Your task to perform on an android device: Set the phone to "Do not disturb". Image 0: 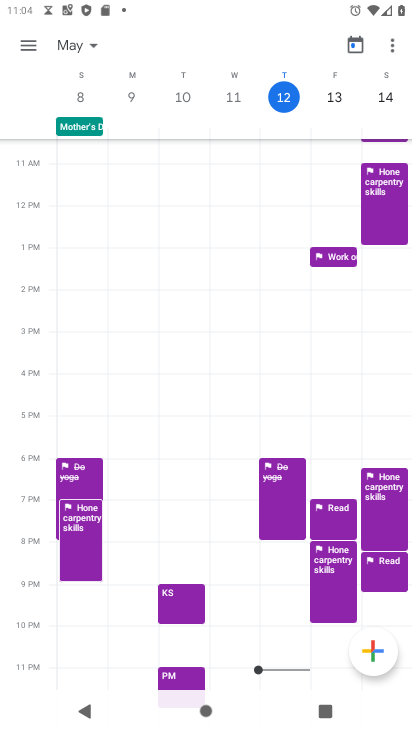
Step 0: press back button
Your task to perform on an android device: Set the phone to "Do not disturb". Image 1: 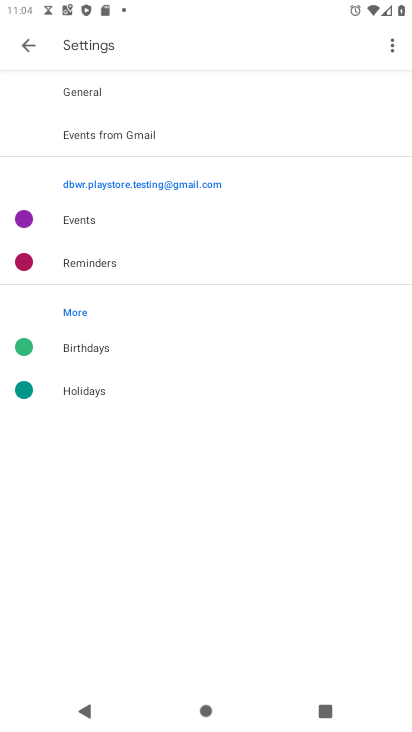
Step 1: press back button
Your task to perform on an android device: Set the phone to "Do not disturb". Image 2: 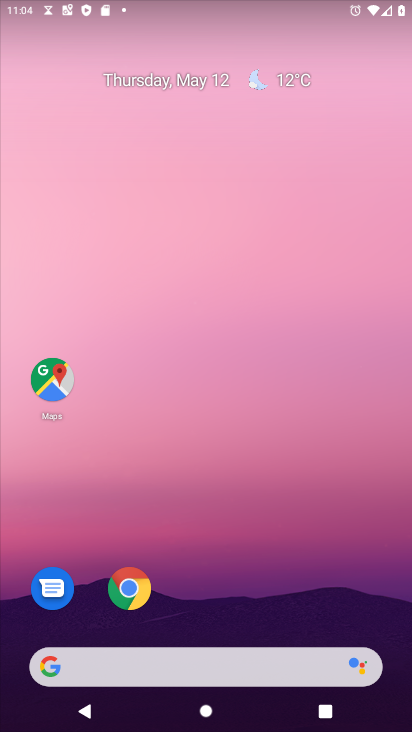
Step 2: drag from (255, 578) to (224, 89)
Your task to perform on an android device: Set the phone to "Do not disturb". Image 3: 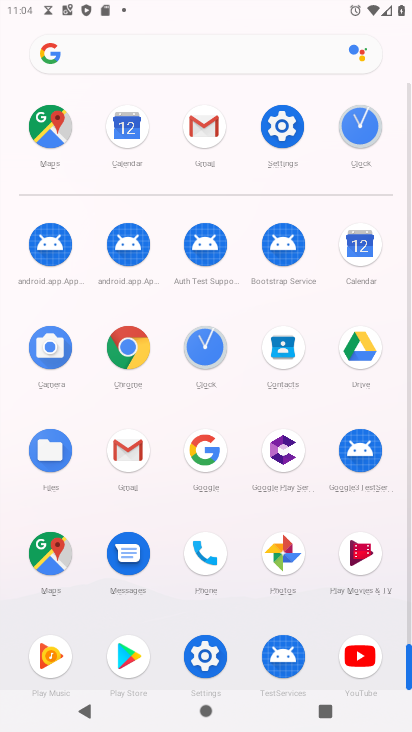
Step 3: click (284, 126)
Your task to perform on an android device: Set the phone to "Do not disturb". Image 4: 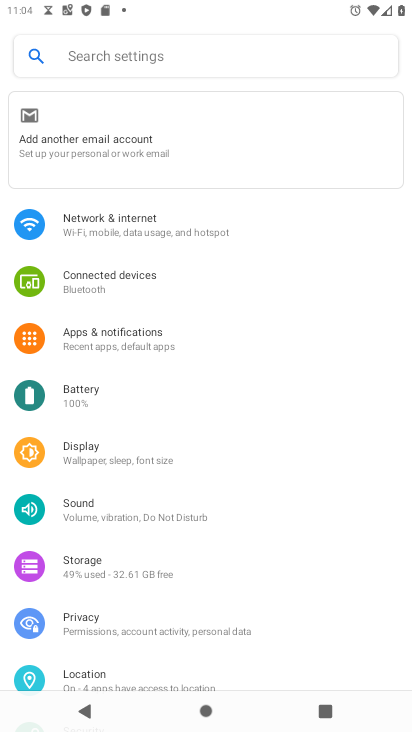
Step 4: click (178, 520)
Your task to perform on an android device: Set the phone to "Do not disturb". Image 5: 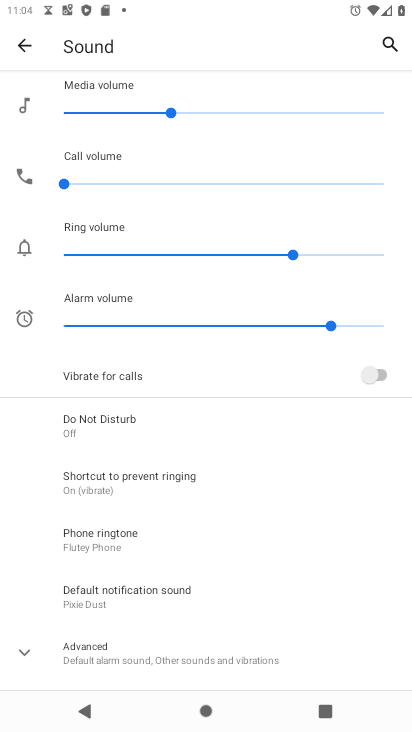
Step 5: click (117, 424)
Your task to perform on an android device: Set the phone to "Do not disturb". Image 6: 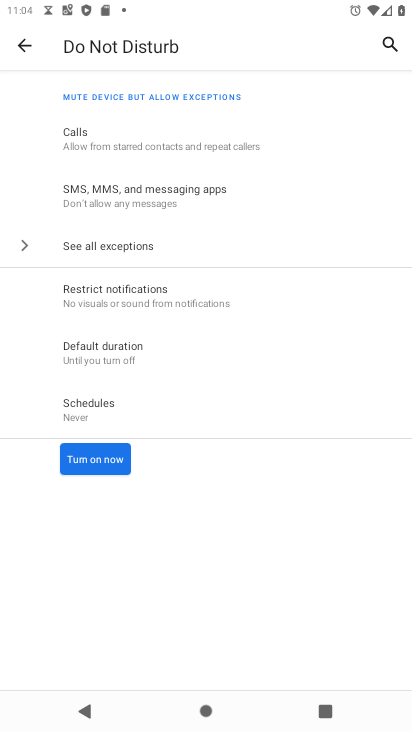
Step 6: click (112, 458)
Your task to perform on an android device: Set the phone to "Do not disturb". Image 7: 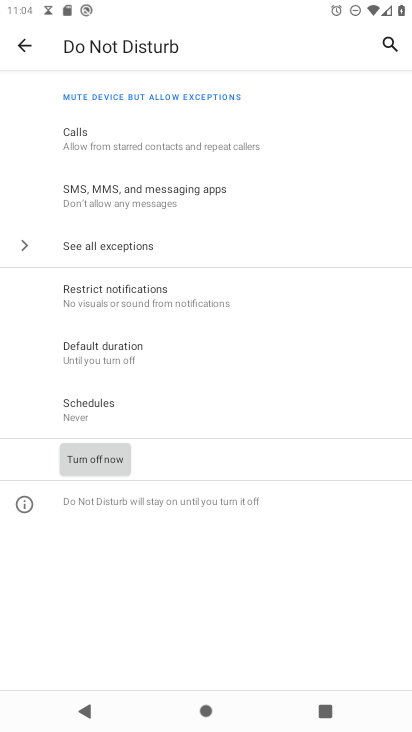
Step 7: task complete